Your task to perform on an android device: Show me recent news Image 0: 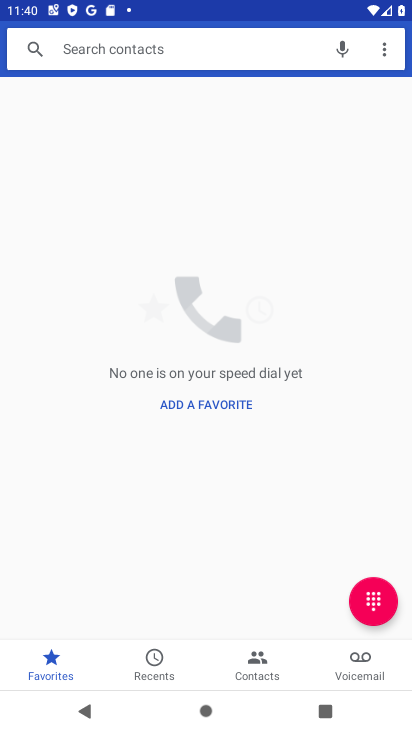
Step 0: press home button
Your task to perform on an android device: Show me recent news Image 1: 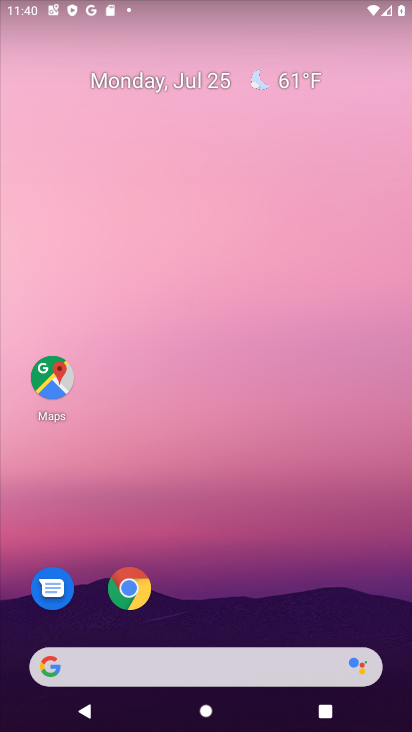
Step 1: task complete